Your task to perform on an android device: turn off priority inbox in the gmail app Image 0: 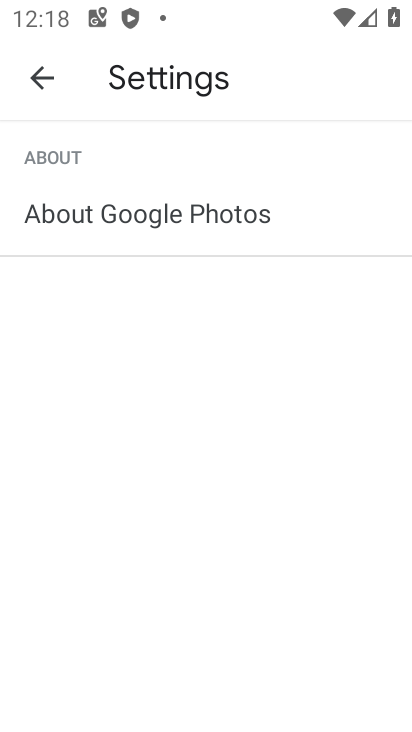
Step 0: click (44, 106)
Your task to perform on an android device: turn off priority inbox in the gmail app Image 1: 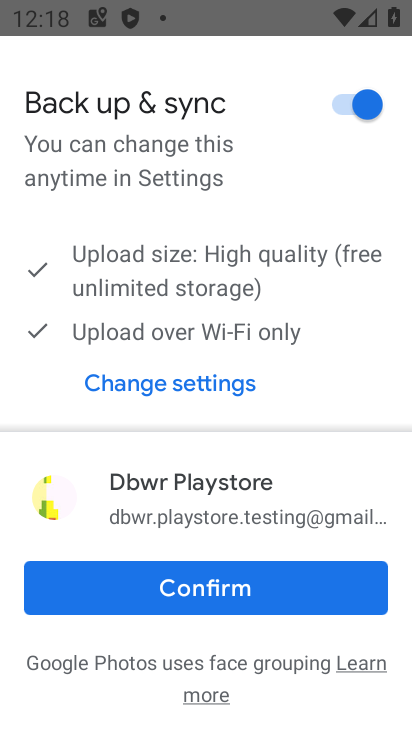
Step 1: press home button
Your task to perform on an android device: turn off priority inbox in the gmail app Image 2: 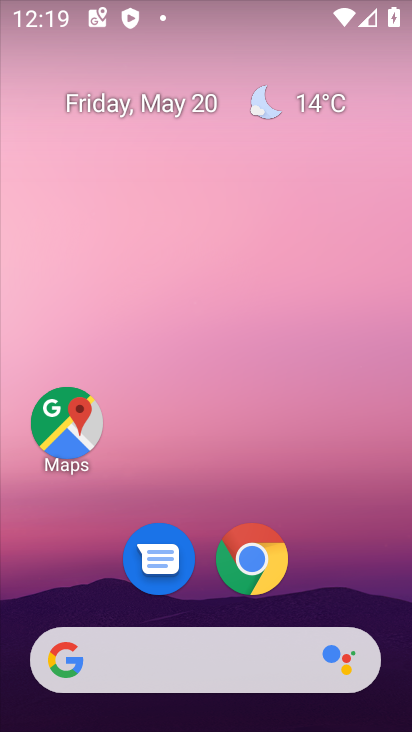
Step 2: drag from (359, 558) to (373, 195)
Your task to perform on an android device: turn off priority inbox in the gmail app Image 3: 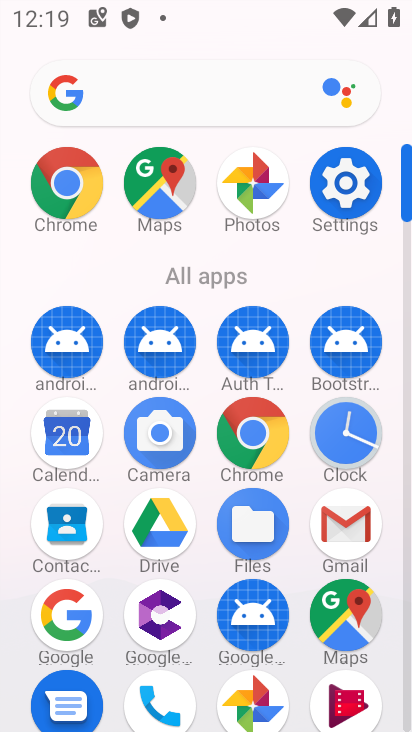
Step 3: click (338, 182)
Your task to perform on an android device: turn off priority inbox in the gmail app Image 4: 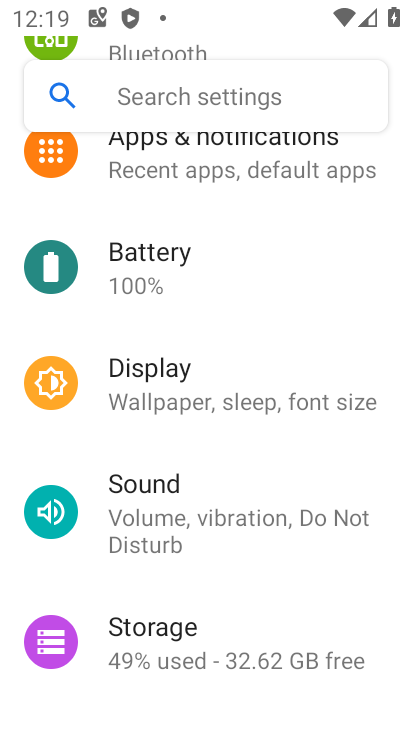
Step 4: press back button
Your task to perform on an android device: turn off priority inbox in the gmail app Image 5: 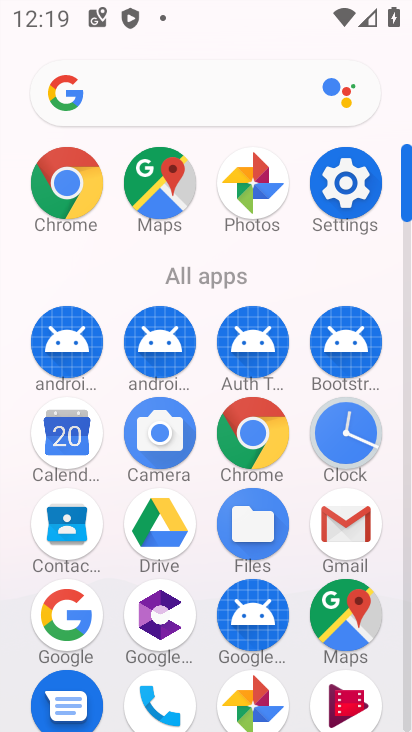
Step 5: click (339, 518)
Your task to perform on an android device: turn off priority inbox in the gmail app Image 6: 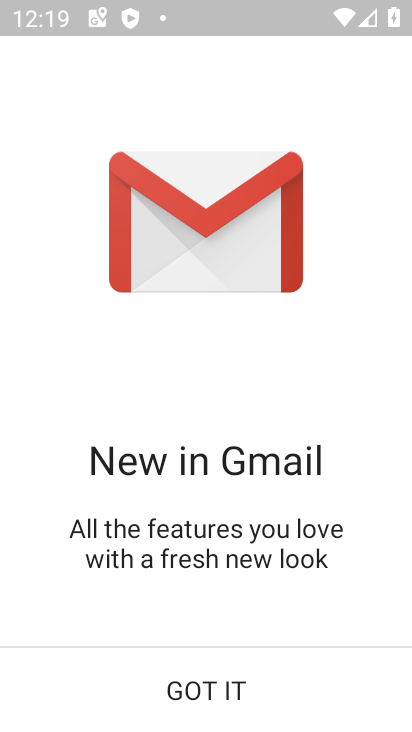
Step 6: click (265, 674)
Your task to perform on an android device: turn off priority inbox in the gmail app Image 7: 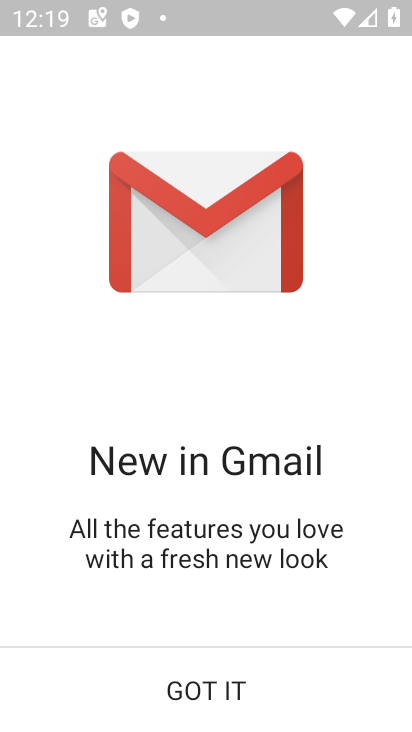
Step 7: click (265, 674)
Your task to perform on an android device: turn off priority inbox in the gmail app Image 8: 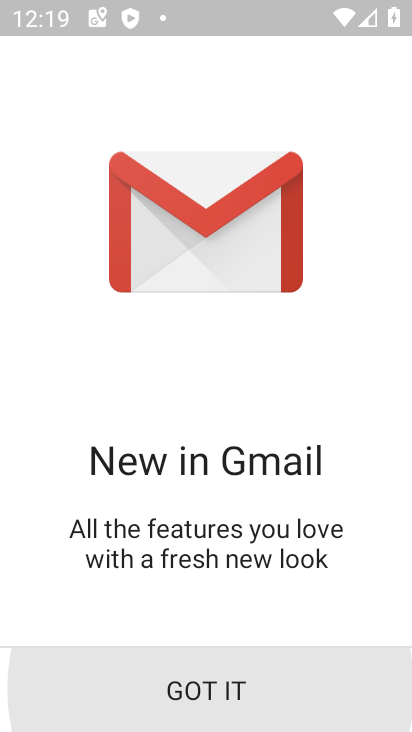
Step 8: click (265, 674)
Your task to perform on an android device: turn off priority inbox in the gmail app Image 9: 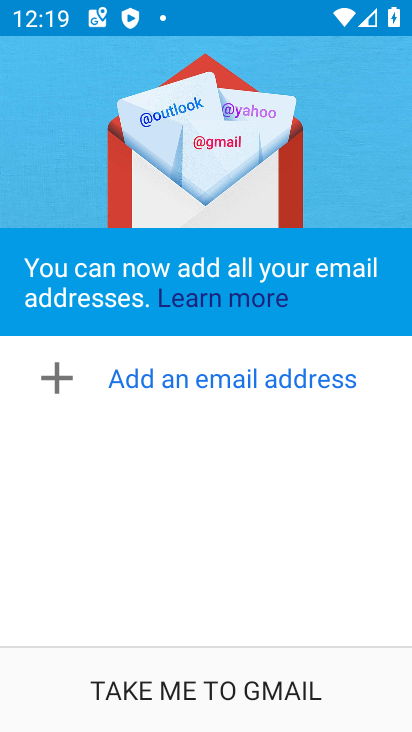
Step 9: click (265, 674)
Your task to perform on an android device: turn off priority inbox in the gmail app Image 10: 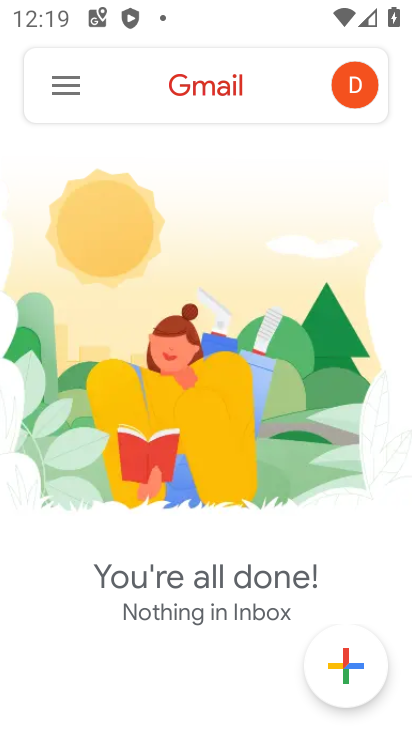
Step 10: click (74, 75)
Your task to perform on an android device: turn off priority inbox in the gmail app Image 11: 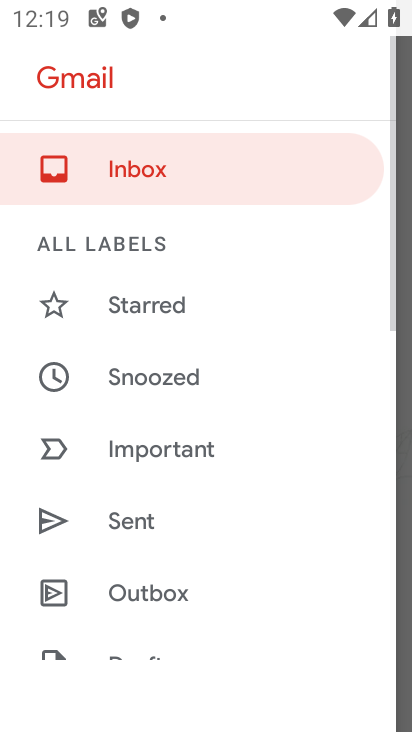
Step 11: drag from (70, 505) to (67, 5)
Your task to perform on an android device: turn off priority inbox in the gmail app Image 12: 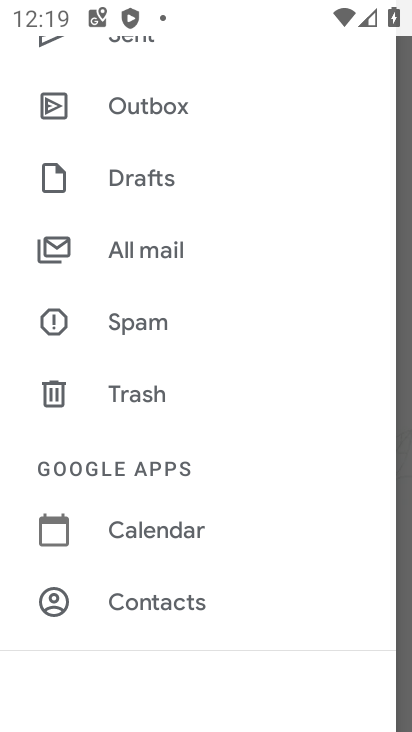
Step 12: drag from (152, 599) to (196, 87)
Your task to perform on an android device: turn off priority inbox in the gmail app Image 13: 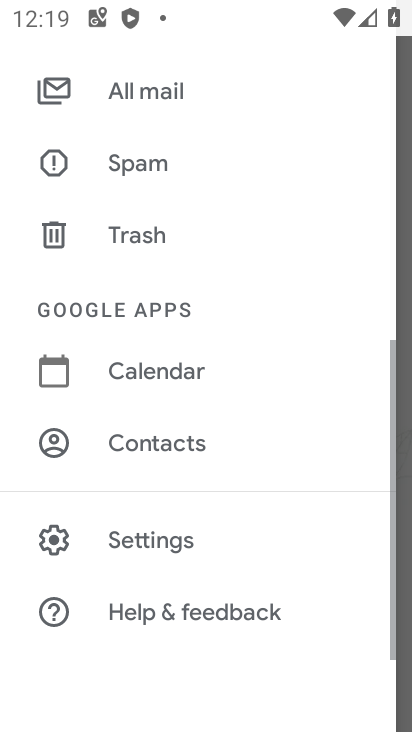
Step 13: click (204, 511)
Your task to perform on an android device: turn off priority inbox in the gmail app Image 14: 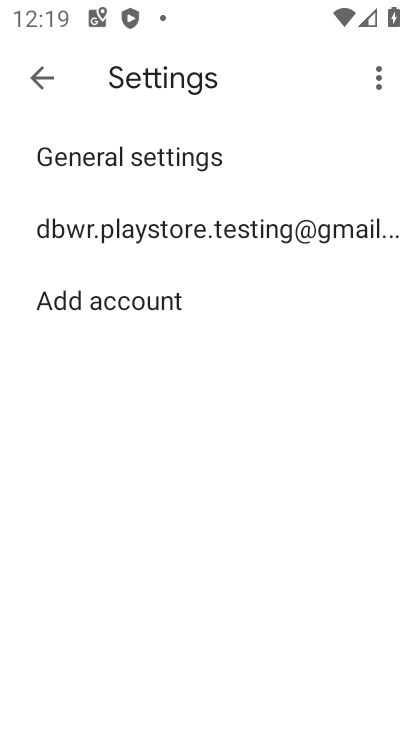
Step 14: click (140, 236)
Your task to perform on an android device: turn off priority inbox in the gmail app Image 15: 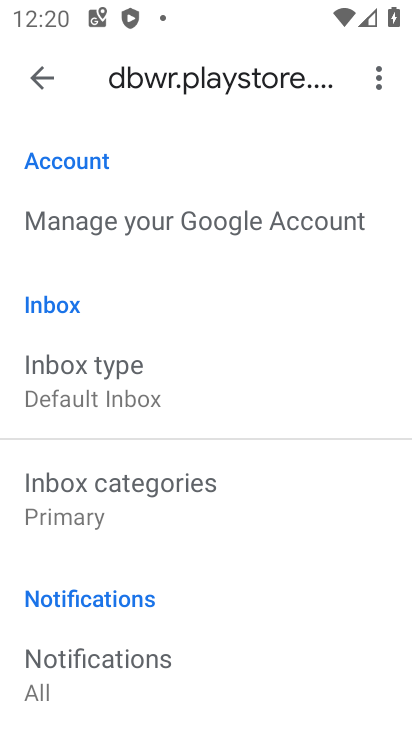
Step 15: click (168, 529)
Your task to perform on an android device: turn off priority inbox in the gmail app Image 16: 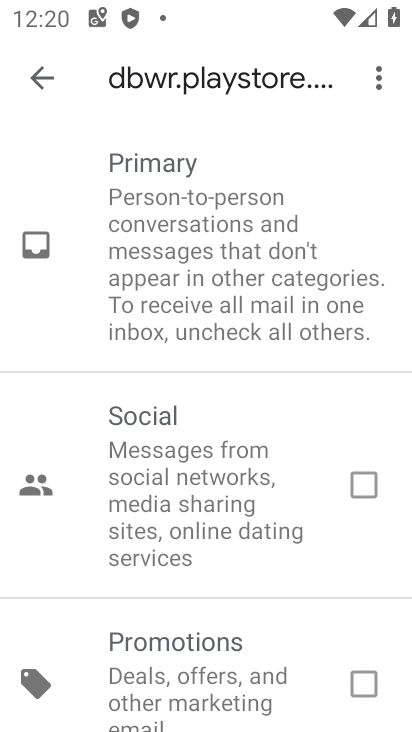
Step 16: task complete